Your task to perform on an android device: install app "Etsy: Buy & Sell Unique Items" Image 0: 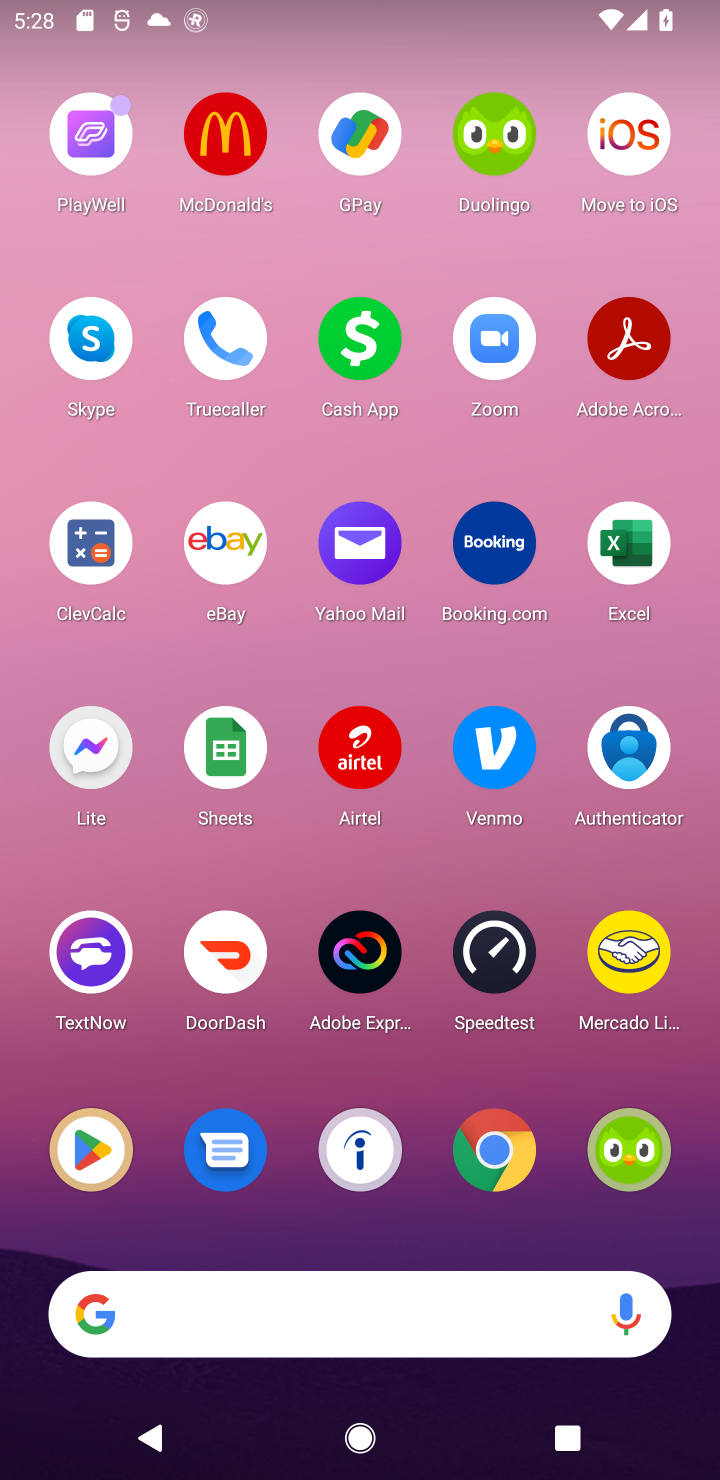
Step 0: task complete